Your task to perform on an android device: Go to Maps Image 0: 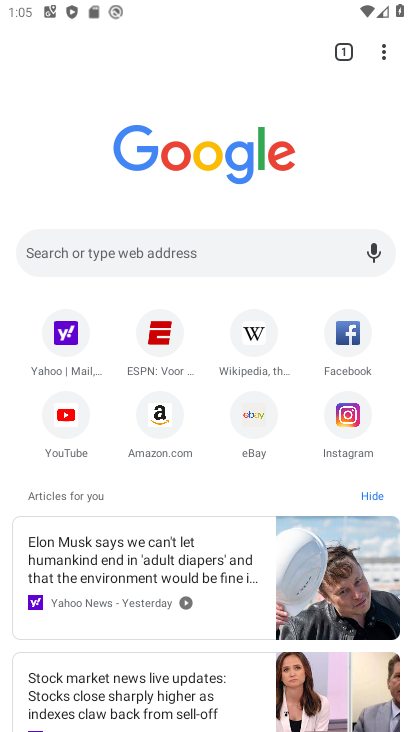
Step 0: press home button
Your task to perform on an android device: Go to Maps Image 1: 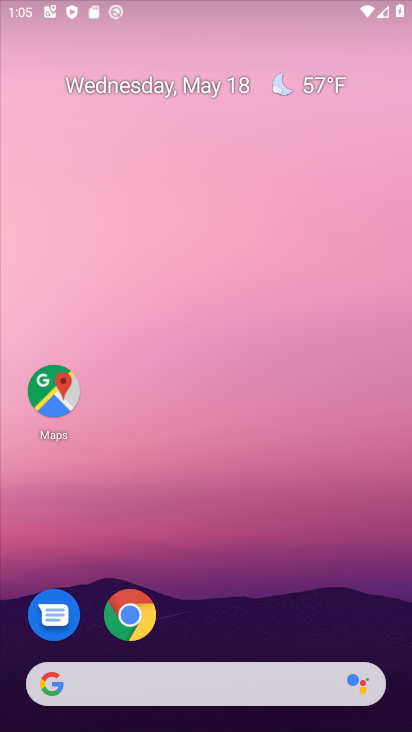
Step 1: drag from (387, 633) to (297, 53)
Your task to perform on an android device: Go to Maps Image 2: 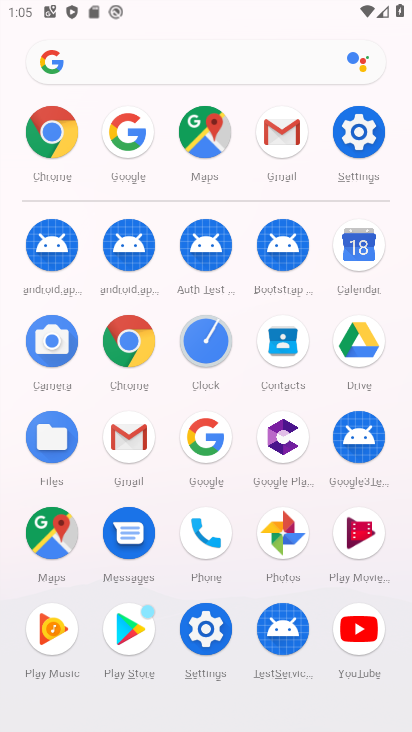
Step 2: click (62, 524)
Your task to perform on an android device: Go to Maps Image 3: 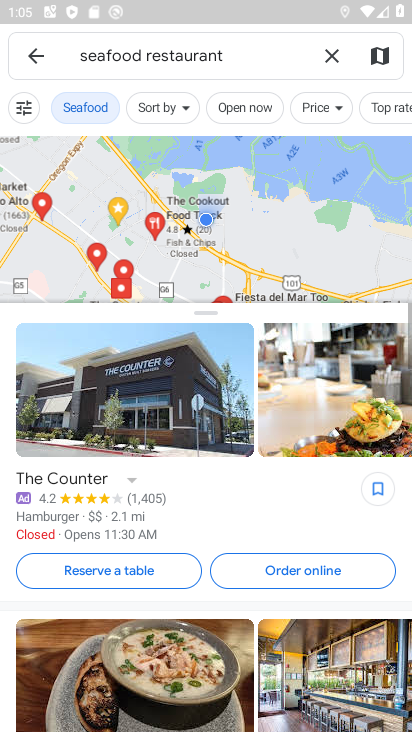
Step 3: click (329, 57)
Your task to perform on an android device: Go to Maps Image 4: 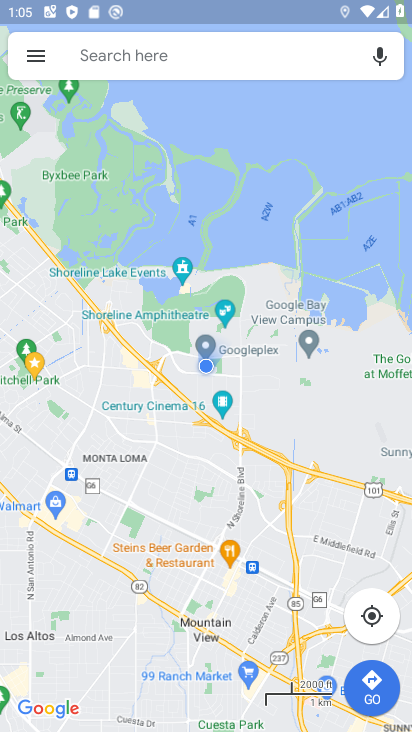
Step 4: task complete